Your task to perform on an android device: see sites visited before in the chrome app Image 0: 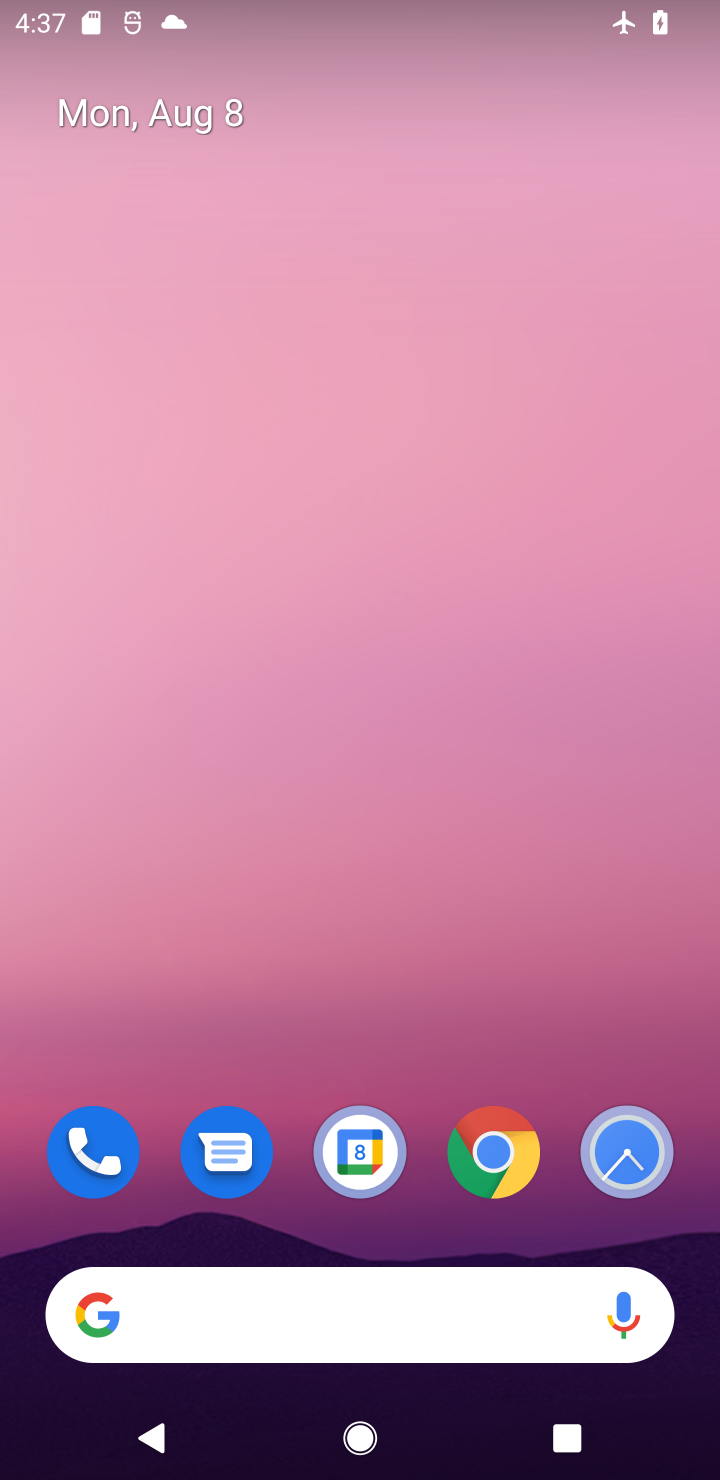
Step 0: click (519, 1133)
Your task to perform on an android device: see sites visited before in the chrome app Image 1: 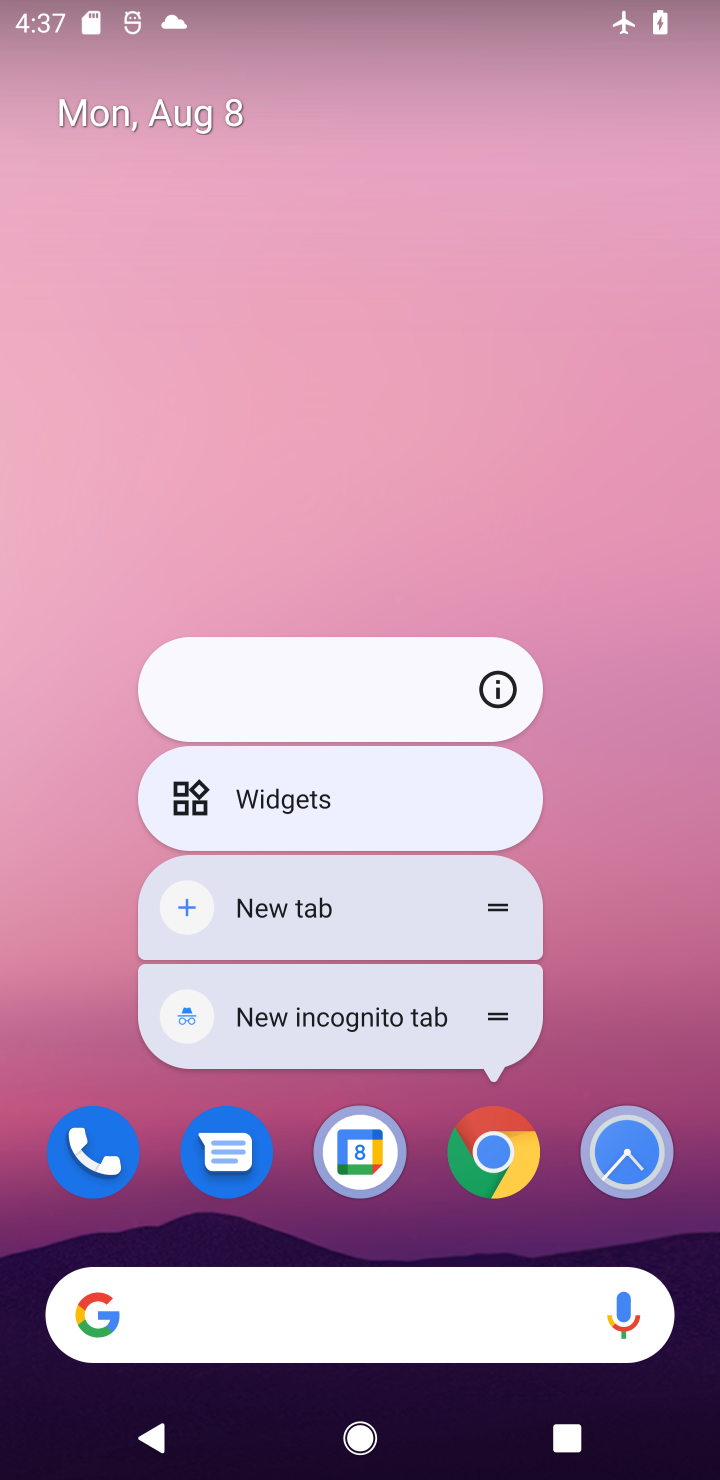
Step 1: click (499, 1110)
Your task to perform on an android device: see sites visited before in the chrome app Image 2: 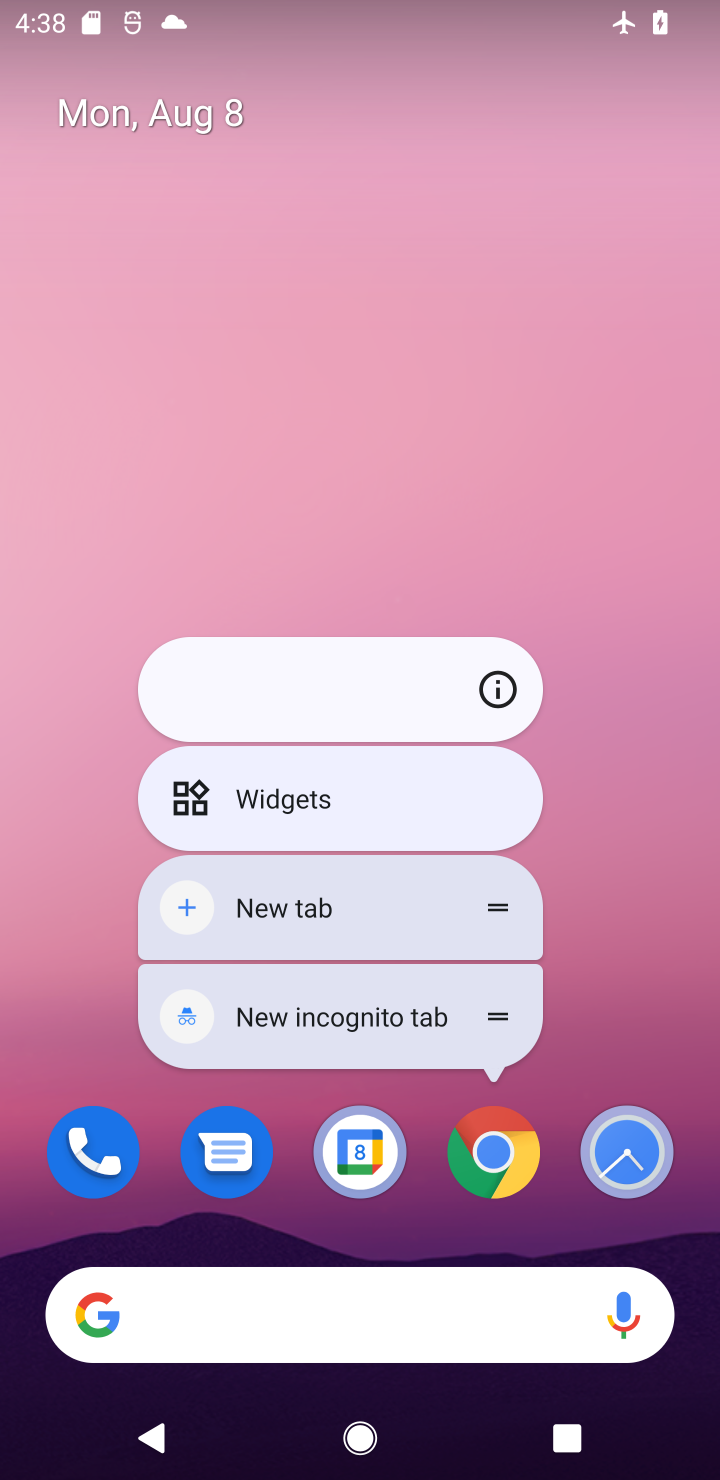
Step 2: click (489, 1121)
Your task to perform on an android device: see sites visited before in the chrome app Image 3: 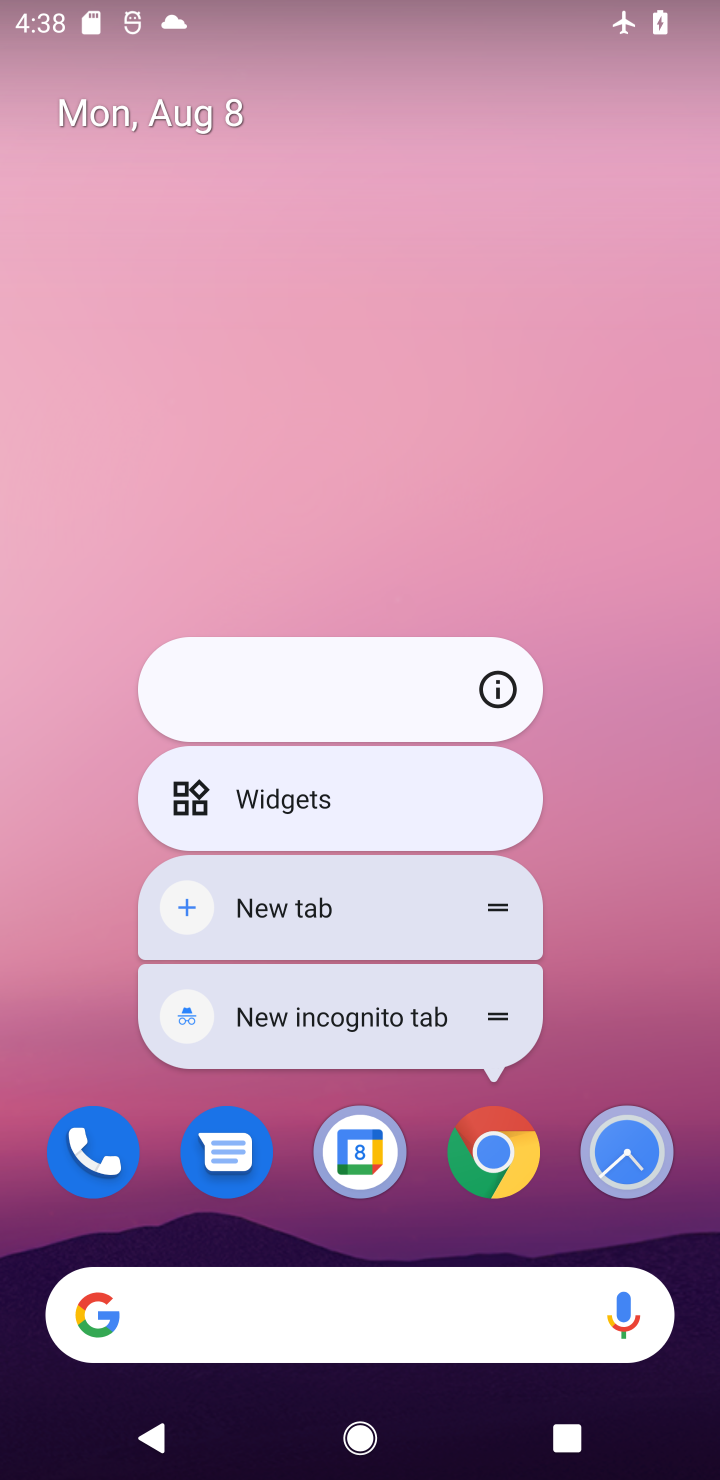
Step 3: click (507, 1140)
Your task to perform on an android device: see sites visited before in the chrome app Image 4: 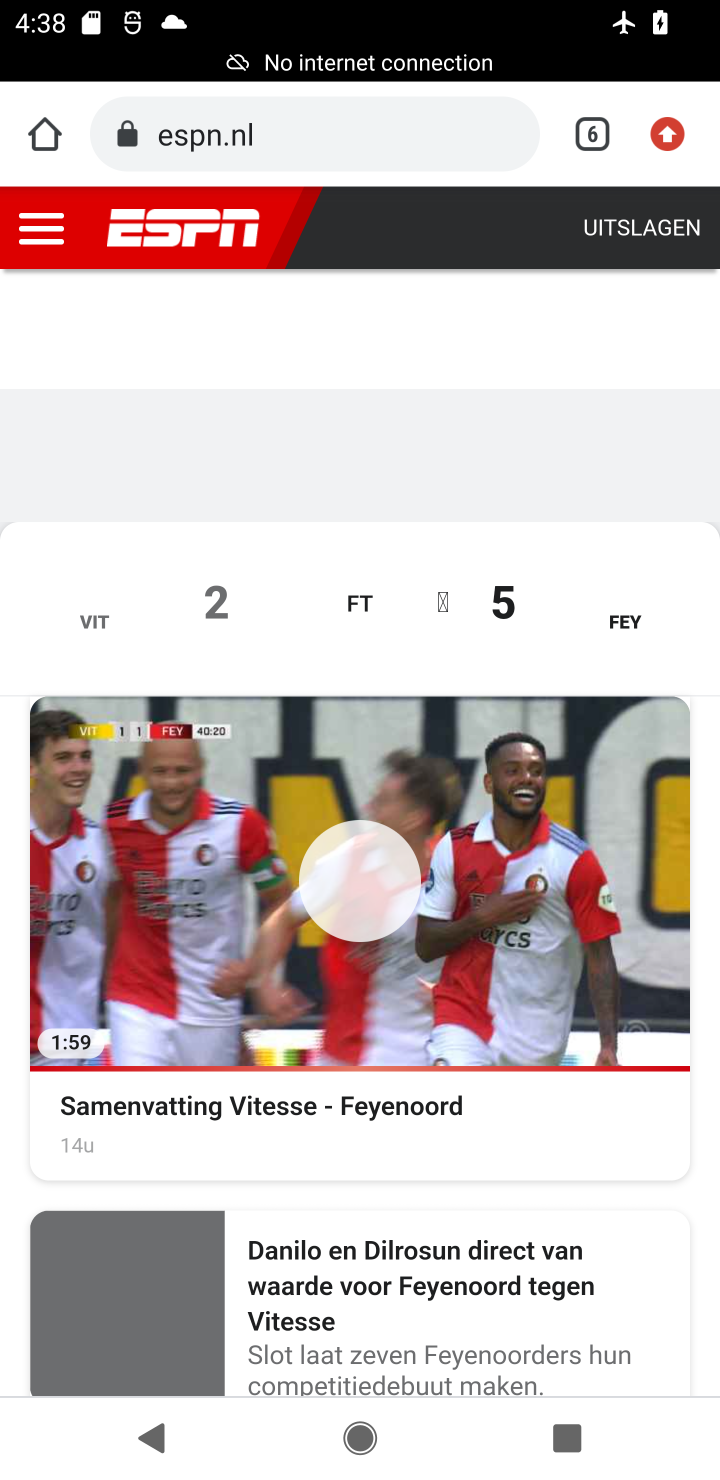
Step 4: task complete